Your task to perform on an android device: turn off location history Image 0: 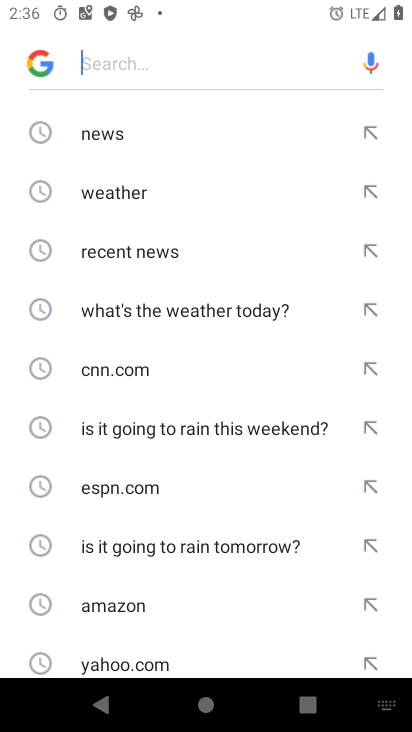
Step 0: press home button
Your task to perform on an android device: turn off location history Image 1: 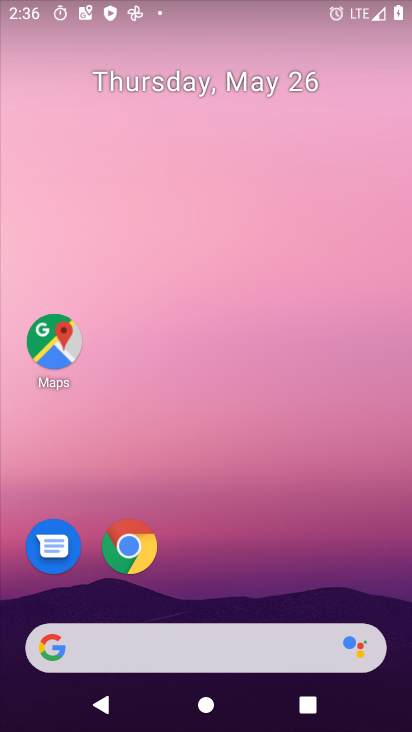
Step 1: drag from (217, 513) to (285, 69)
Your task to perform on an android device: turn off location history Image 2: 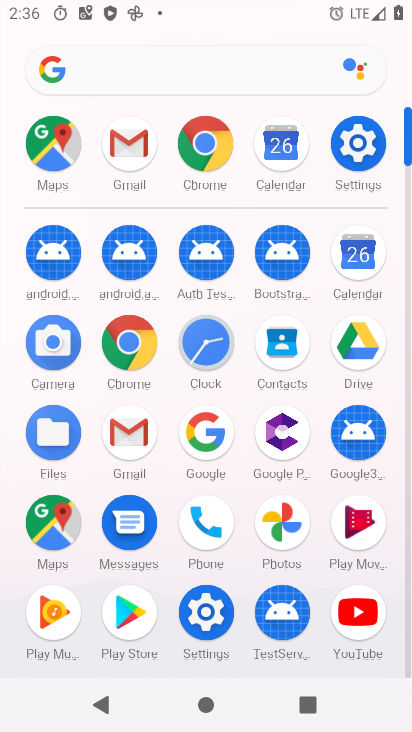
Step 2: click (358, 141)
Your task to perform on an android device: turn off location history Image 3: 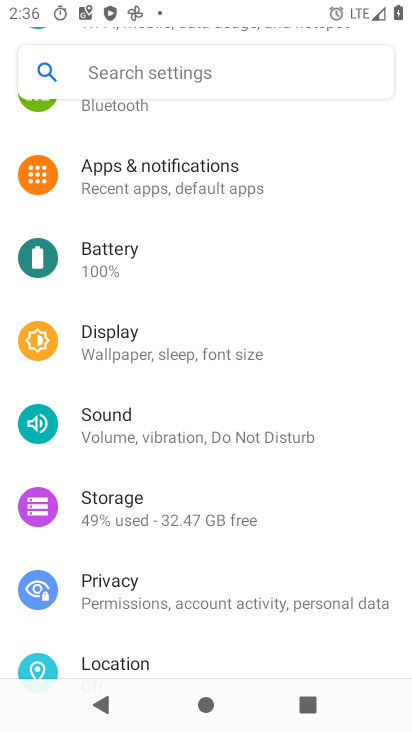
Step 3: drag from (156, 649) to (180, 360)
Your task to perform on an android device: turn off location history Image 4: 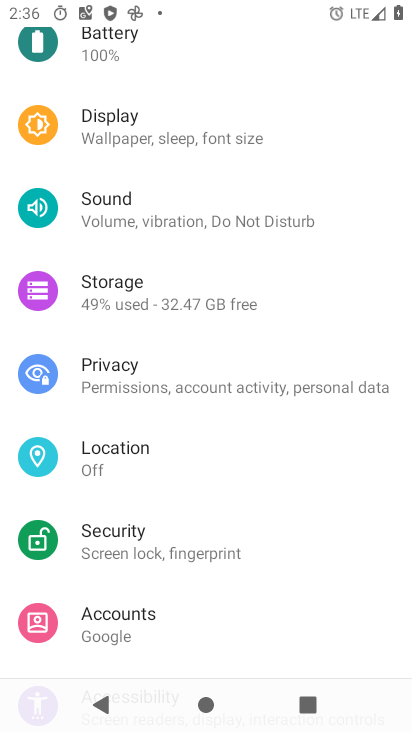
Step 4: click (128, 454)
Your task to perform on an android device: turn off location history Image 5: 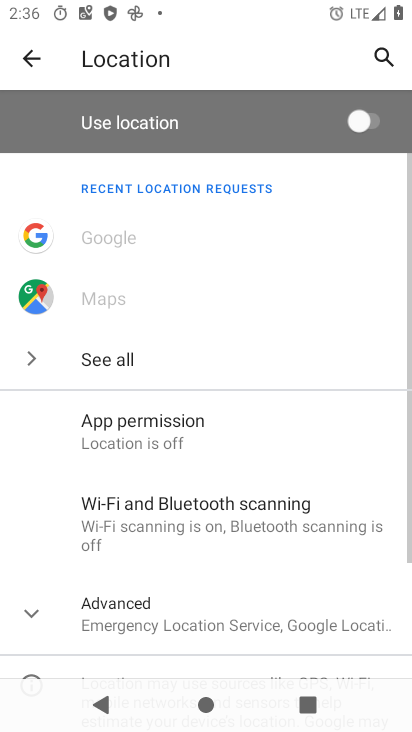
Step 5: drag from (153, 595) to (211, 218)
Your task to perform on an android device: turn off location history Image 6: 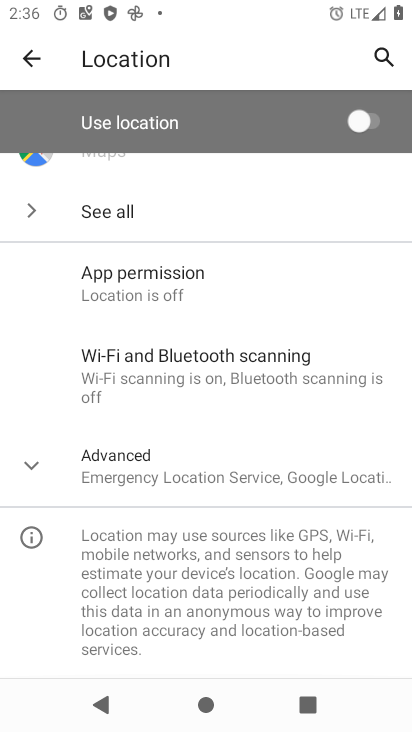
Step 6: click (102, 484)
Your task to perform on an android device: turn off location history Image 7: 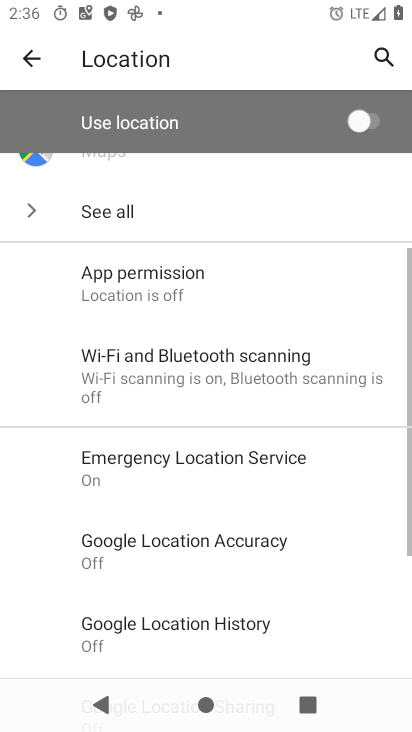
Step 7: drag from (270, 514) to (298, 319)
Your task to perform on an android device: turn off location history Image 8: 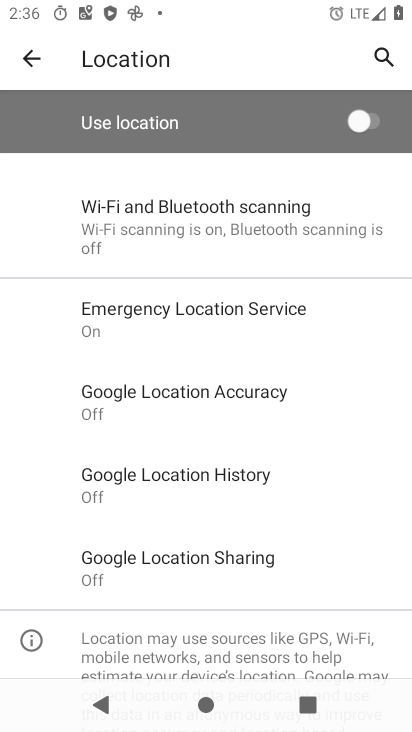
Step 8: click (130, 484)
Your task to perform on an android device: turn off location history Image 9: 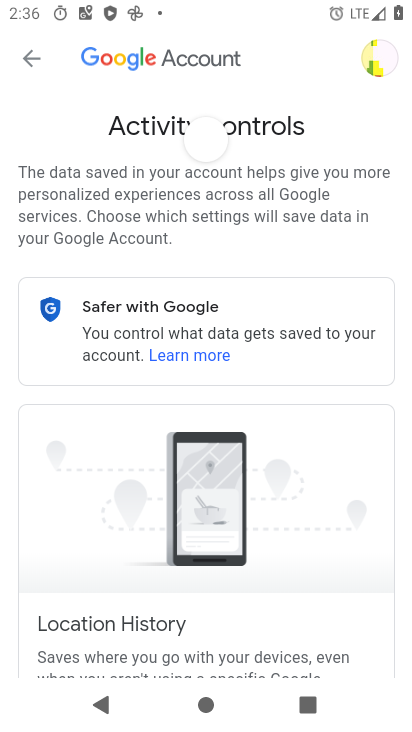
Step 9: task complete